Your task to perform on an android device: Open the Play Movies app and select the watchlist tab. Image 0: 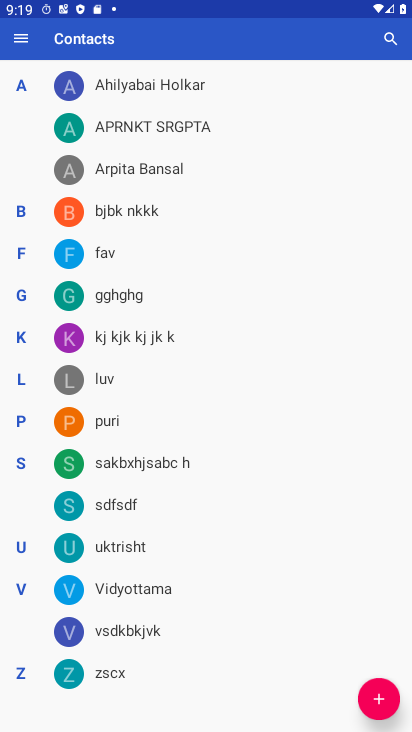
Step 0: drag from (295, 667) to (246, 183)
Your task to perform on an android device: Open the Play Movies app and select the watchlist tab. Image 1: 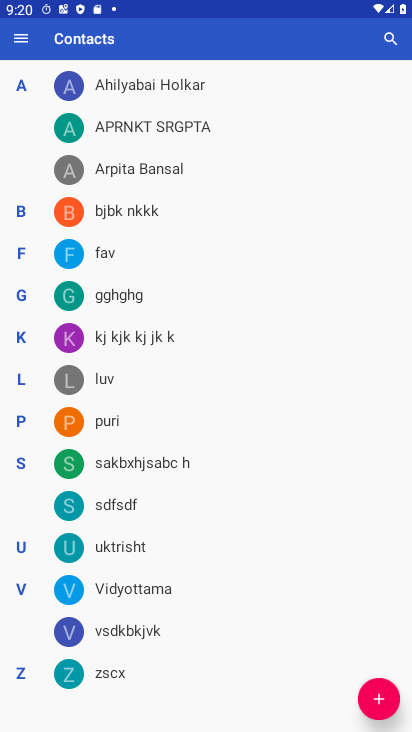
Step 1: press back button
Your task to perform on an android device: Open the Play Movies app and select the watchlist tab. Image 2: 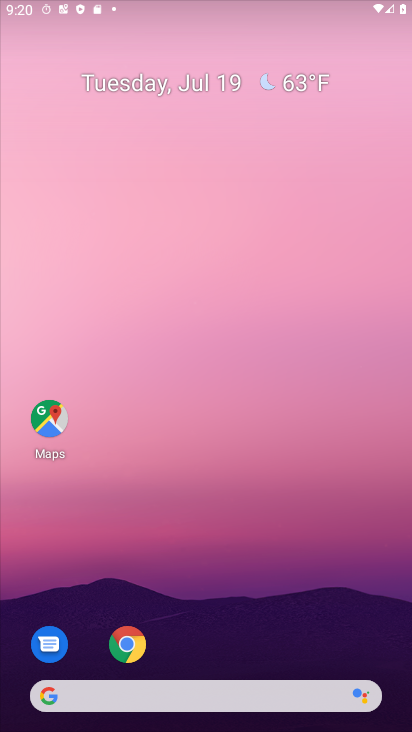
Step 2: drag from (225, 666) to (219, 156)
Your task to perform on an android device: Open the Play Movies app and select the watchlist tab. Image 3: 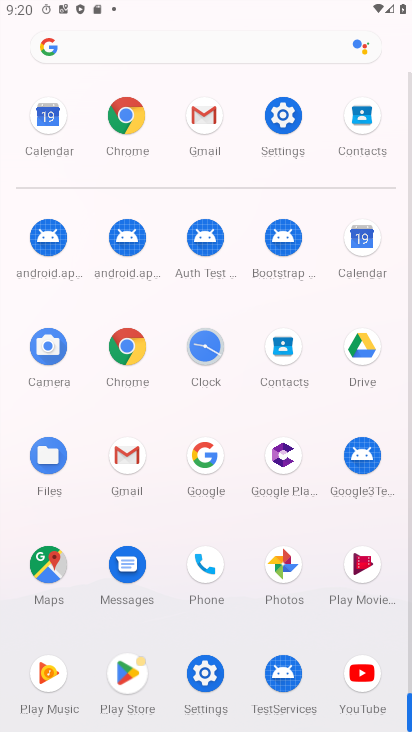
Step 3: click (362, 560)
Your task to perform on an android device: Open the Play Movies app and select the watchlist tab. Image 4: 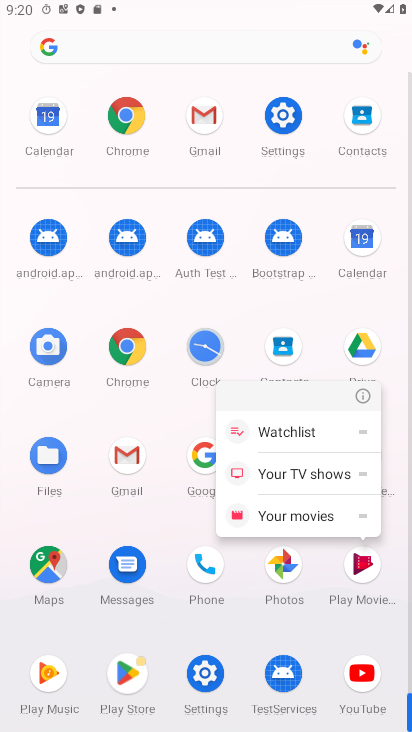
Step 4: click (359, 560)
Your task to perform on an android device: Open the Play Movies app and select the watchlist tab. Image 5: 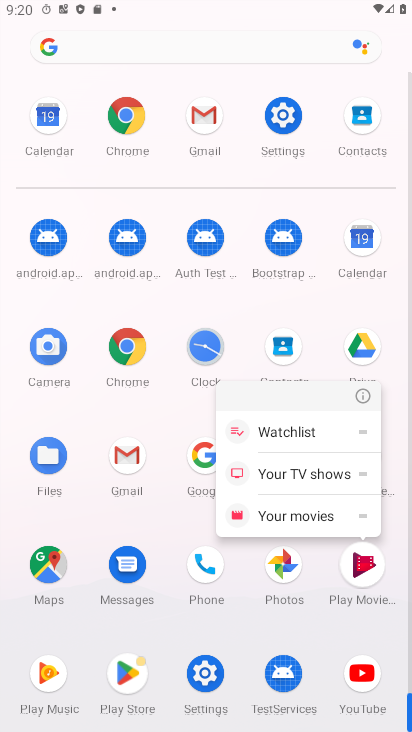
Step 5: click (360, 561)
Your task to perform on an android device: Open the Play Movies app and select the watchlist tab. Image 6: 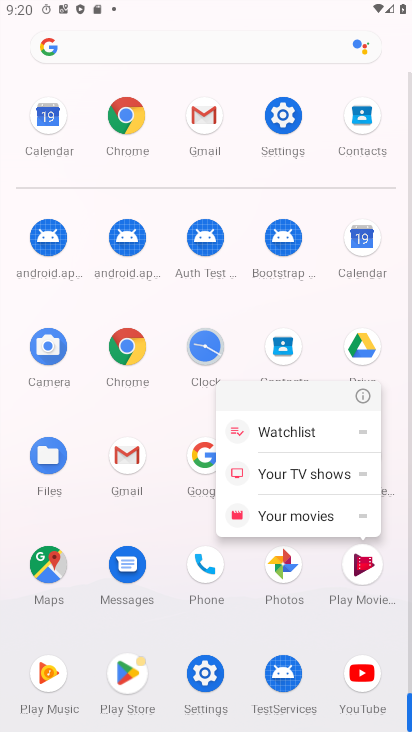
Step 6: click (360, 561)
Your task to perform on an android device: Open the Play Movies app and select the watchlist tab. Image 7: 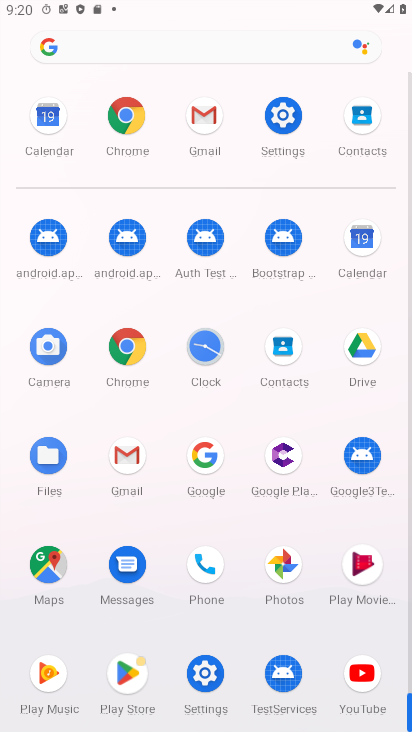
Step 7: click (360, 562)
Your task to perform on an android device: Open the Play Movies app and select the watchlist tab. Image 8: 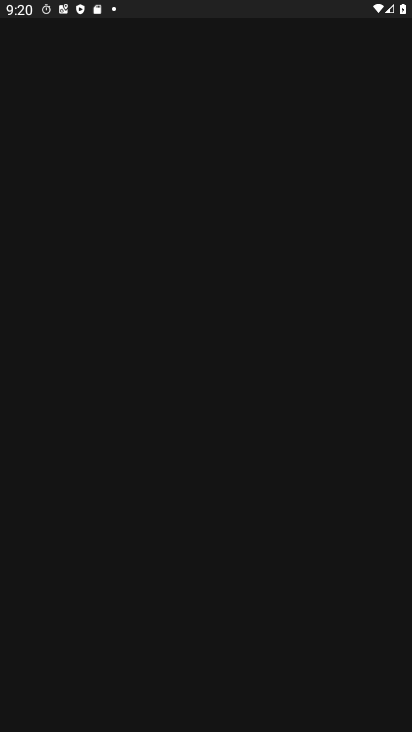
Step 8: click (360, 562)
Your task to perform on an android device: Open the Play Movies app and select the watchlist tab. Image 9: 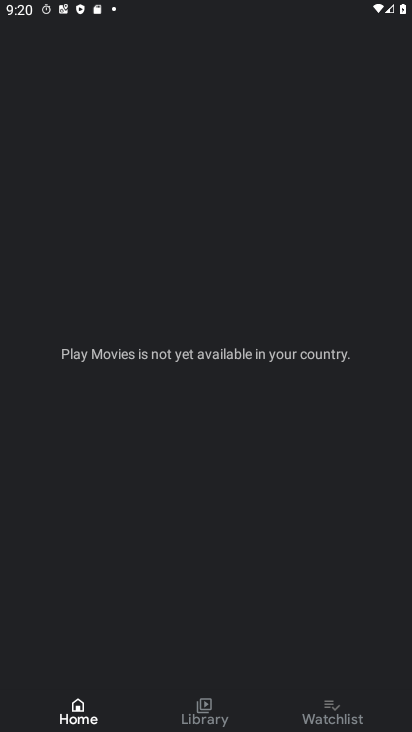
Step 9: click (314, 717)
Your task to perform on an android device: Open the Play Movies app and select the watchlist tab. Image 10: 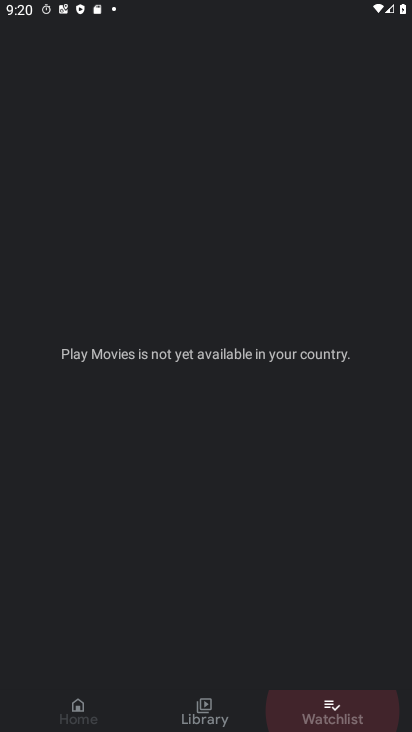
Step 10: click (314, 717)
Your task to perform on an android device: Open the Play Movies app and select the watchlist tab. Image 11: 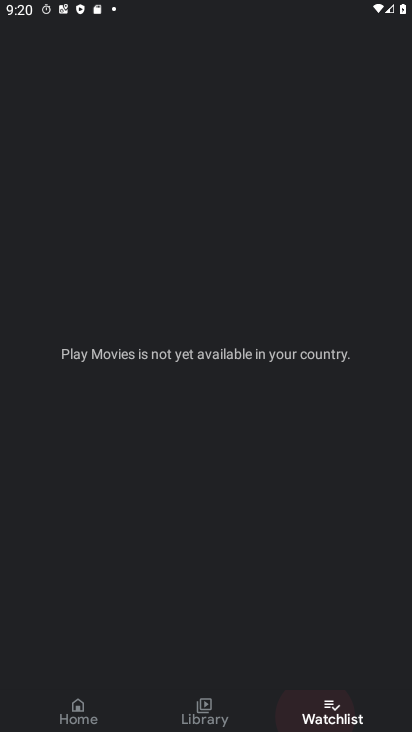
Step 11: click (314, 717)
Your task to perform on an android device: Open the Play Movies app and select the watchlist tab. Image 12: 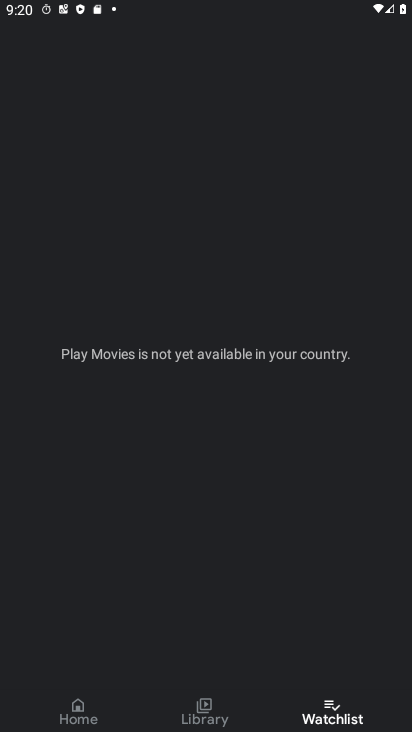
Step 12: task complete